Your task to perform on an android device: Search for alienware aurora on newegg.com, select the first entry, and add it to the cart. Image 0: 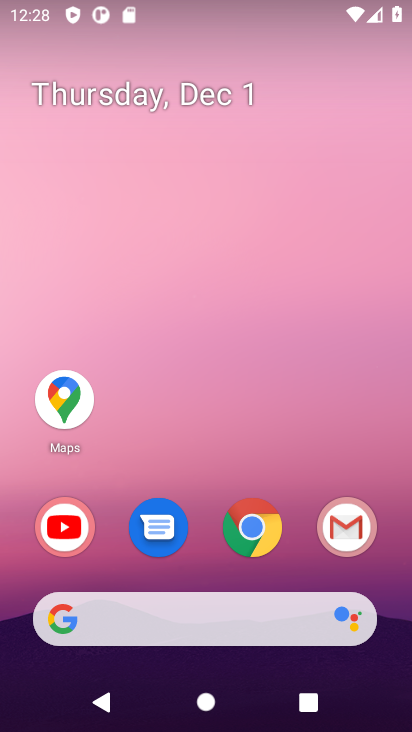
Step 0: click (238, 521)
Your task to perform on an android device: Search for alienware aurora on newegg.com, select the first entry, and add it to the cart. Image 1: 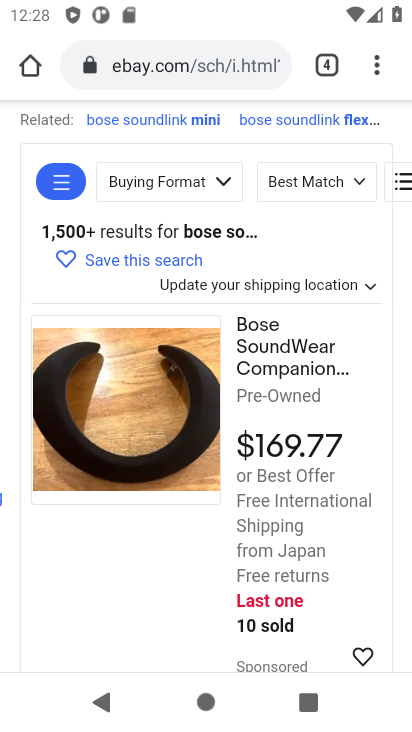
Step 1: click (178, 68)
Your task to perform on an android device: Search for alienware aurora on newegg.com, select the first entry, and add it to the cart. Image 2: 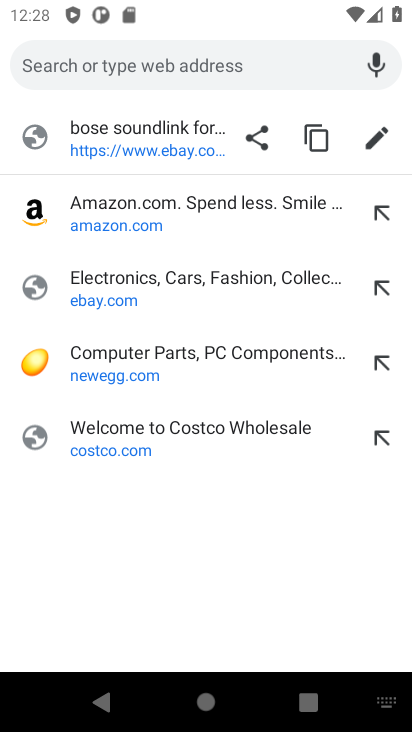
Step 2: click (113, 360)
Your task to perform on an android device: Search for alienware aurora on newegg.com, select the first entry, and add it to the cart. Image 3: 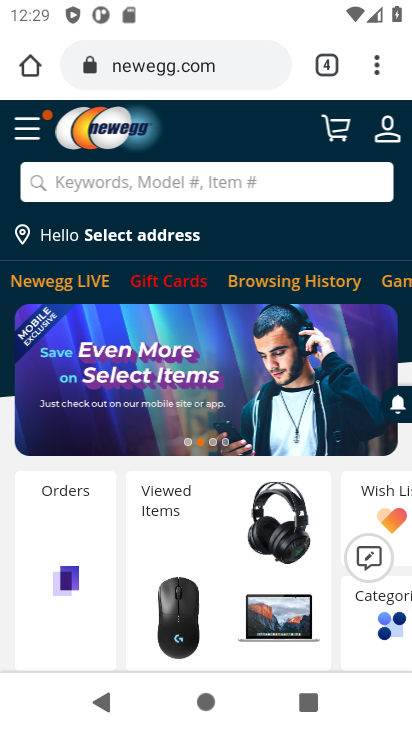
Step 3: click (133, 187)
Your task to perform on an android device: Search for alienware aurora on newegg.com, select the first entry, and add it to the cart. Image 4: 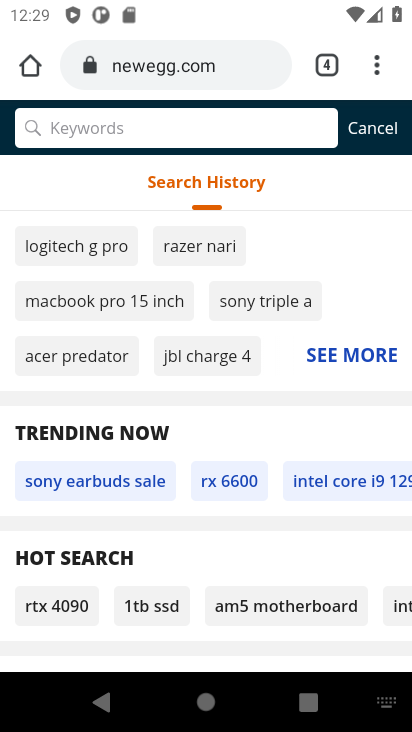
Step 4: type "alienware aurora"
Your task to perform on an android device: Search for alienware aurora on newegg.com, select the first entry, and add it to the cart. Image 5: 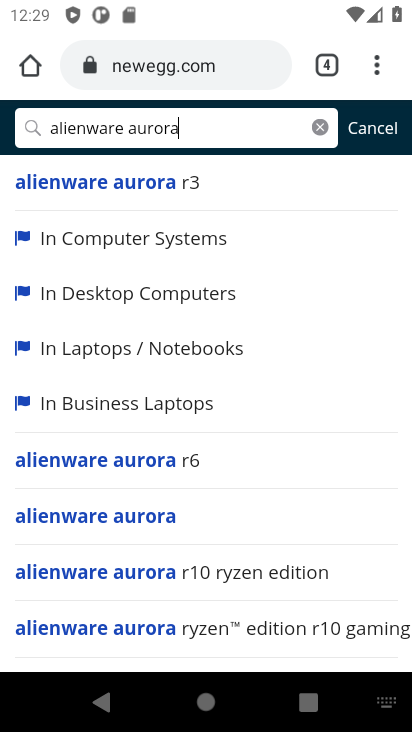
Step 5: click (105, 518)
Your task to perform on an android device: Search for alienware aurora on newegg.com, select the first entry, and add it to the cart. Image 6: 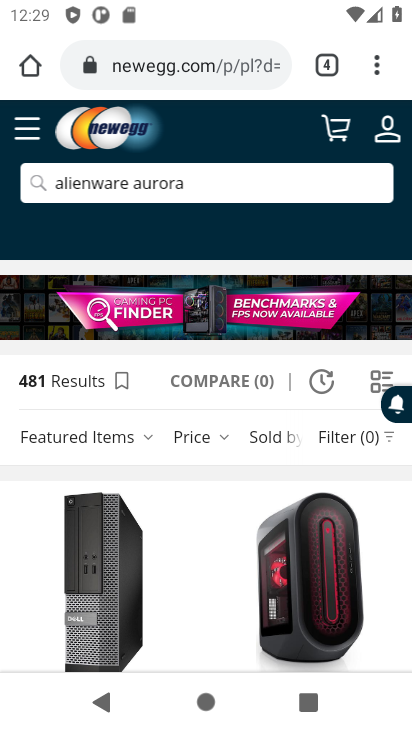
Step 6: task complete